Your task to perform on an android device: Open Amazon Image 0: 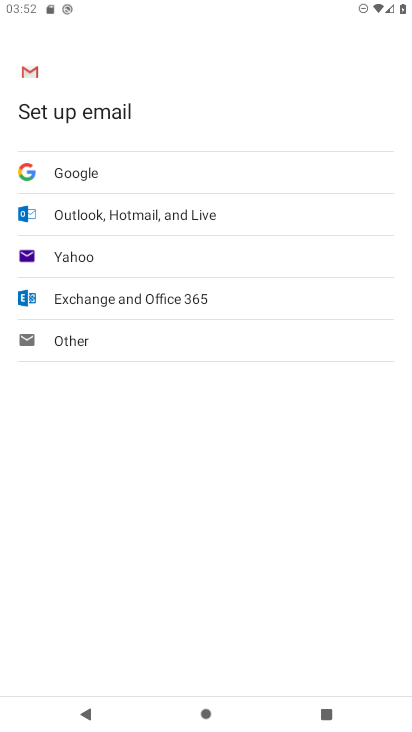
Step 0: press home button
Your task to perform on an android device: Open Amazon Image 1: 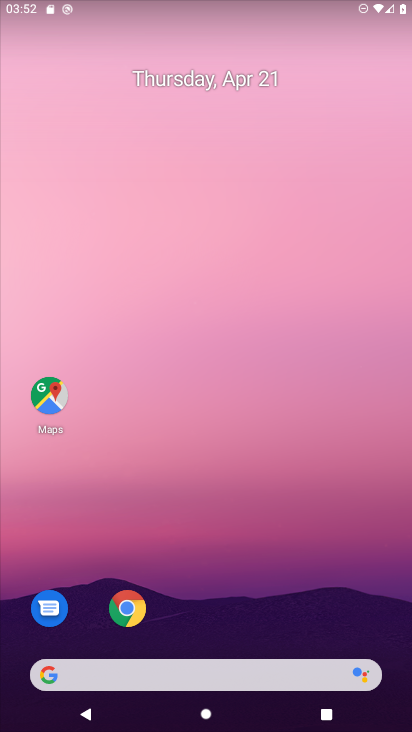
Step 1: drag from (329, 467) to (339, 220)
Your task to perform on an android device: Open Amazon Image 2: 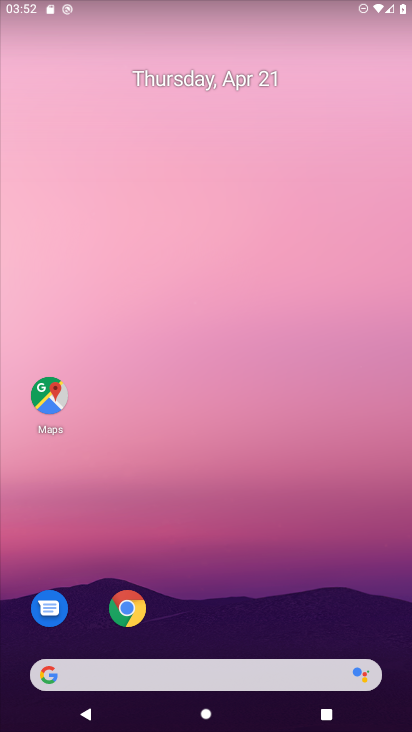
Step 2: drag from (224, 462) to (291, 211)
Your task to perform on an android device: Open Amazon Image 3: 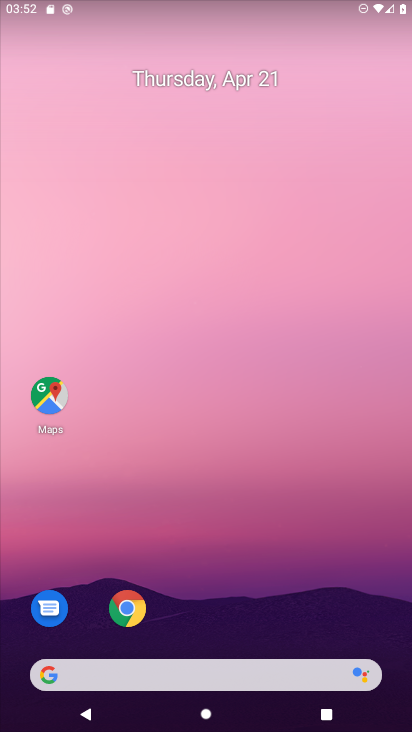
Step 3: drag from (236, 491) to (295, 147)
Your task to perform on an android device: Open Amazon Image 4: 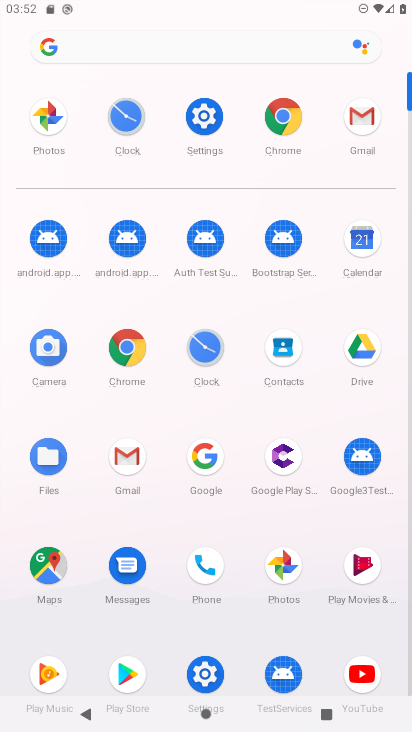
Step 4: click (125, 349)
Your task to perform on an android device: Open Amazon Image 5: 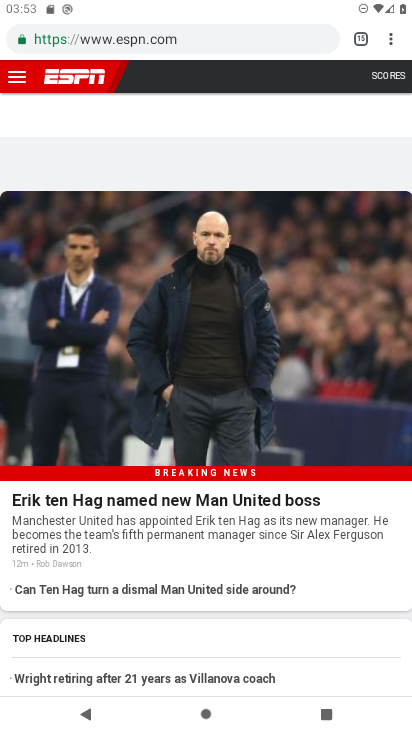
Step 5: click (382, 45)
Your task to perform on an android device: Open Amazon Image 6: 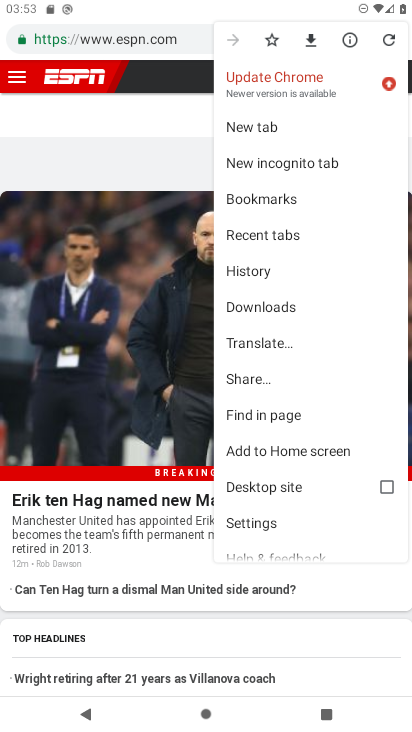
Step 6: click (262, 126)
Your task to perform on an android device: Open Amazon Image 7: 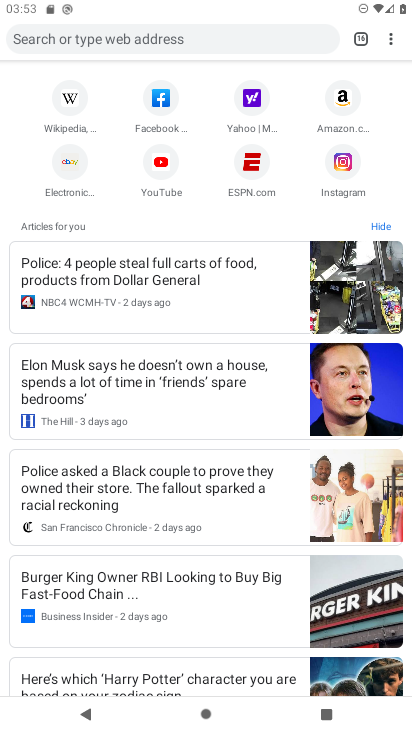
Step 7: click (340, 107)
Your task to perform on an android device: Open Amazon Image 8: 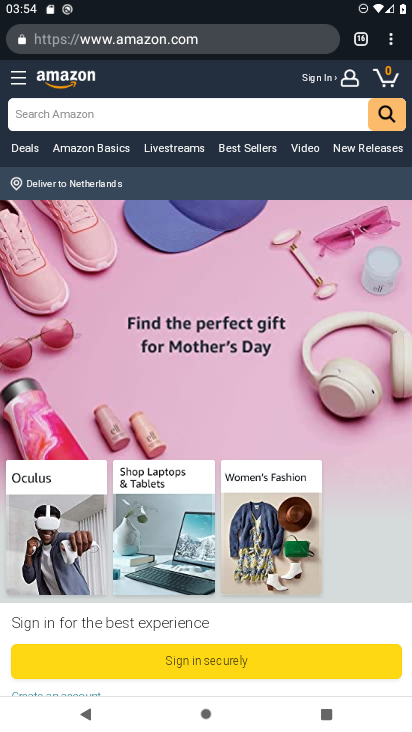
Step 8: task complete